Your task to perform on an android device: delete the emails in spam in the gmail app Image 0: 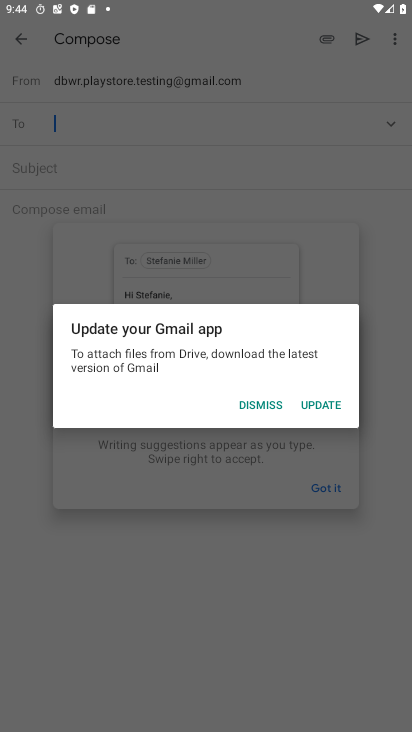
Step 0: press home button
Your task to perform on an android device: delete the emails in spam in the gmail app Image 1: 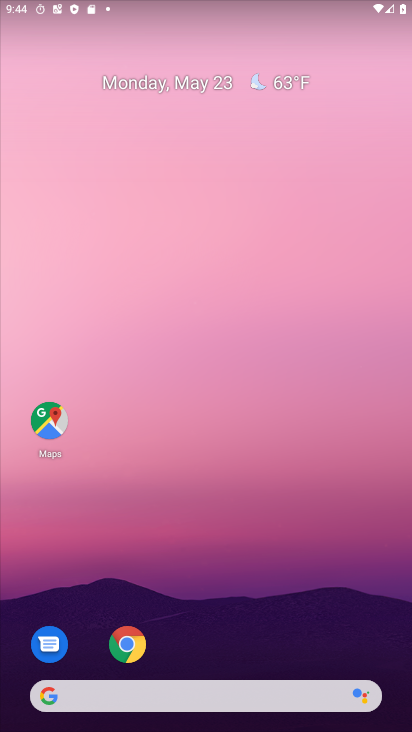
Step 1: drag from (272, 667) to (289, 160)
Your task to perform on an android device: delete the emails in spam in the gmail app Image 2: 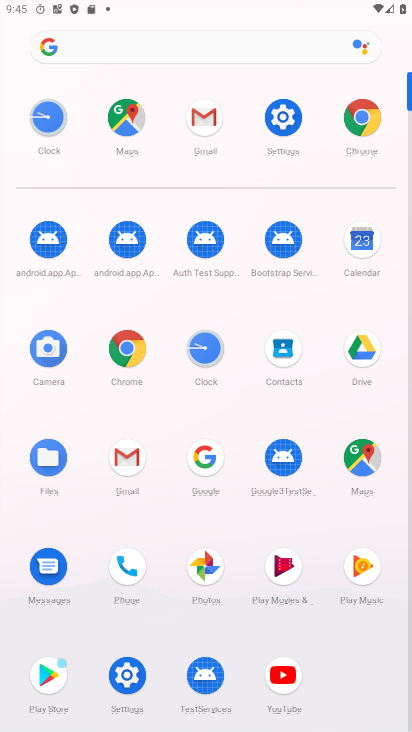
Step 2: click (201, 109)
Your task to perform on an android device: delete the emails in spam in the gmail app Image 3: 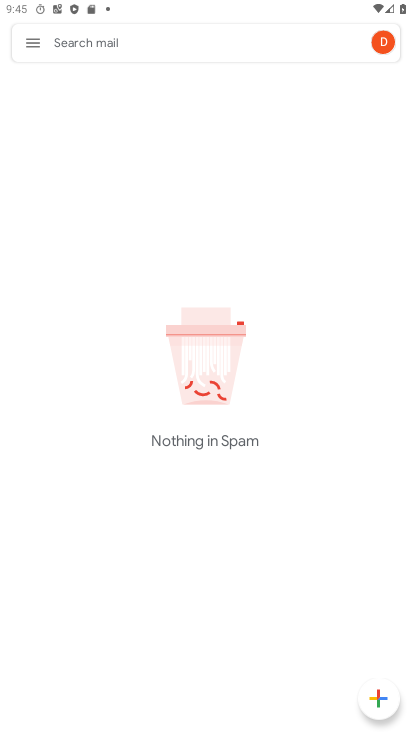
Step 3: click (31, 46)
Your task to perform on an android device: delete the emails in spam in the gmail app Image 4: 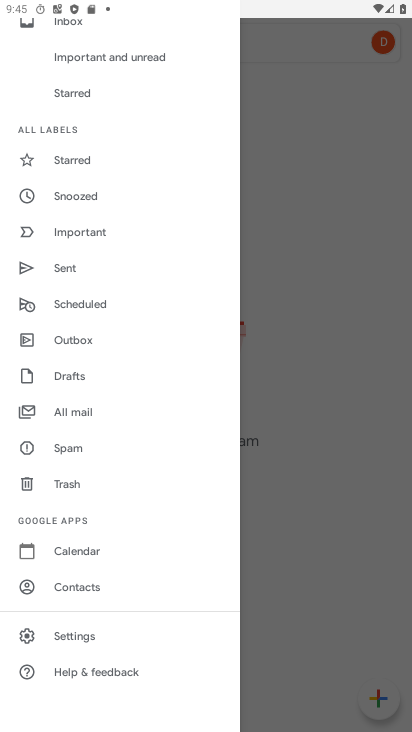
Step 4: task complete